Your task to perform on an android device: Open Youtube and go to the subscriptions tab Image 0: 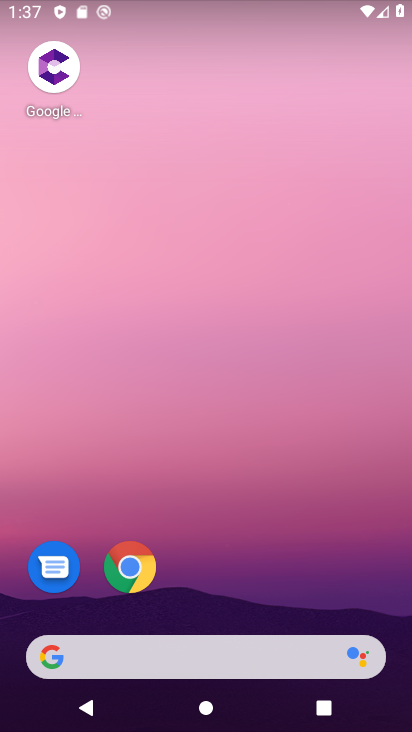
Step 0: drag from (221, 465) to (237, 207)
Your task to perform on an android device: Open Youtube and go to the subscriptions tab Image 1: 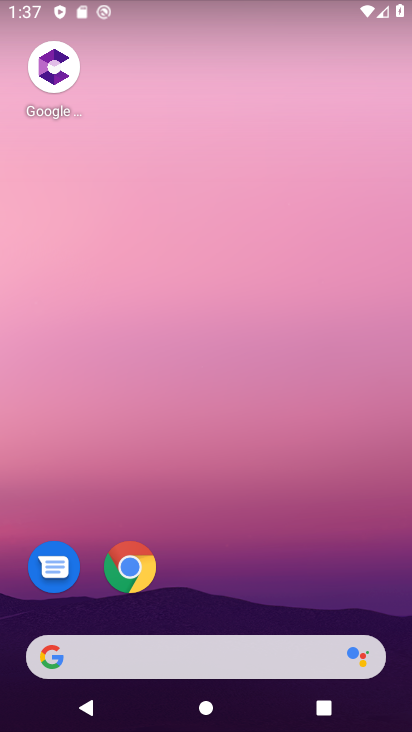
Step 1: drag from (209, 570) to (258, 31)
Your task to perform on an android device: Open Youtube and go to the subscriptions tab Image 2: 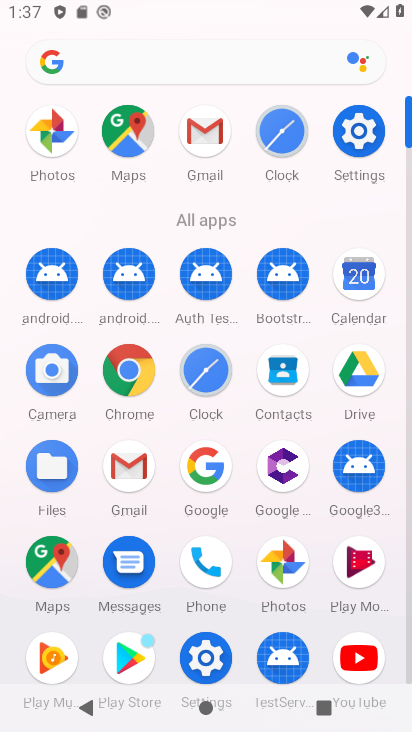
Step 2: click (351, 664)
Your task to perform on an android device: Open Youtube and go to the subscriptions tab Image 3: 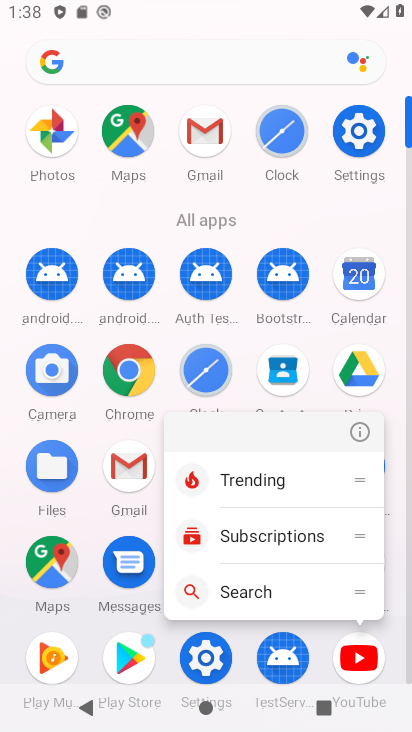
Step 3: click (253, 534)
Your task to perform on an android device: Open Youtube and go to the subscriptions tab Image 4: 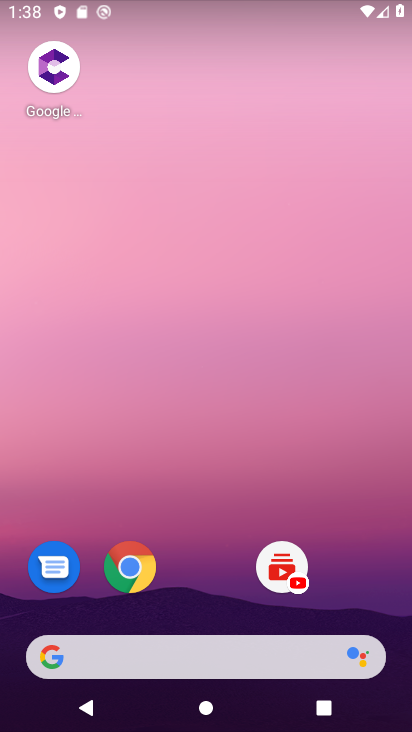
Step 4: drag from (173, 618) to (356, 142)
Your task to perform on an android device: Open Youtube and go to the subscriptions tab Image 5: 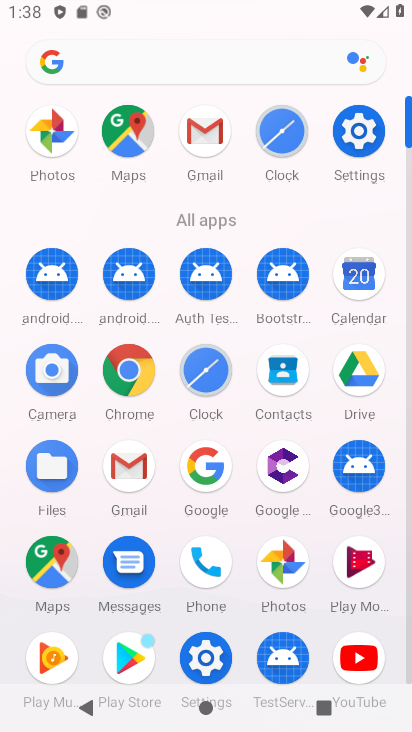
Step 5: click (358, 660)
Your task to perform on an android device: Open Youtube and go to the subscriptions tab Image 6: 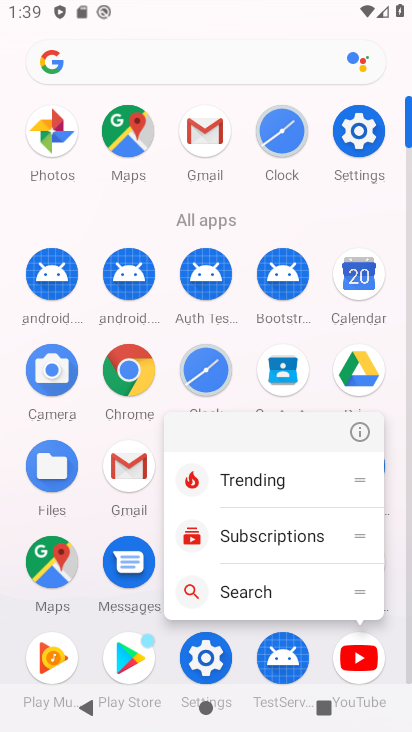
Step 6: click (361, 434)
Your task to perform on an android device: Open Youtube and go to the subscriptions tab Image 7: 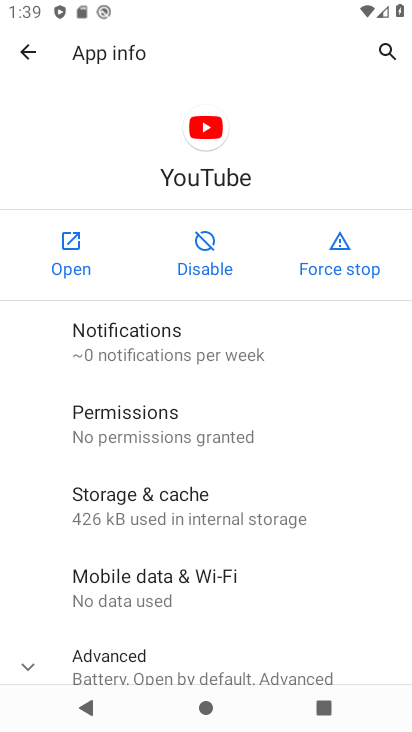
Step 7: click (91, 278)
Your task to perform on an android device: Open Youtube and go to the subscriptions tab Image 8: 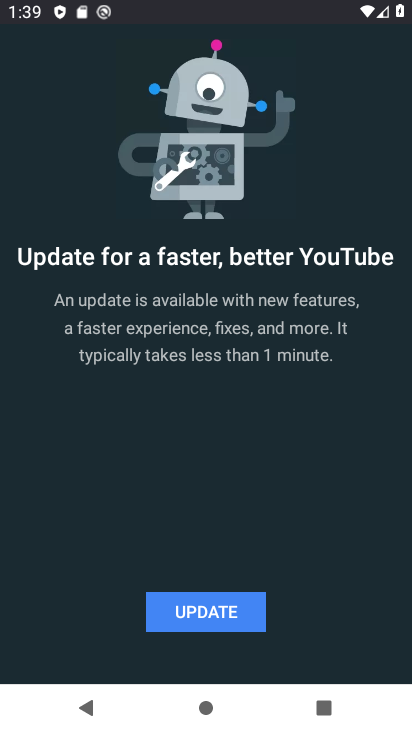
Step 8: click (320, 441)
Your task to perform on an android device: Open Youtube and go to the subscriptions tab Image 9: 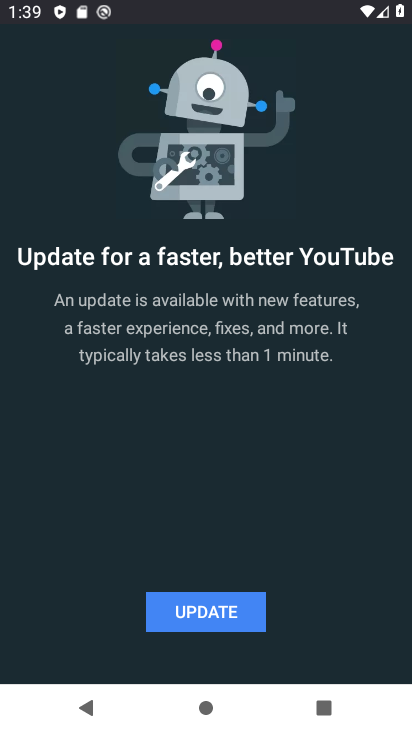
Step 9: task complete